Your task to perform on an android device: check battery use Image 0: 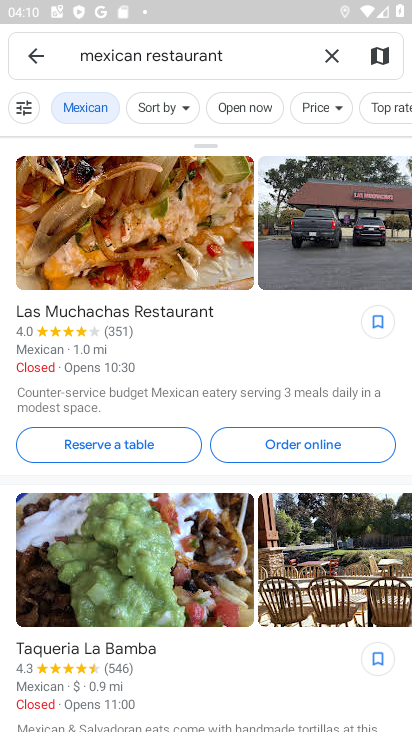
Step 0: click (139, 632)
Your task to perform on an android device: check battery use Image 1: 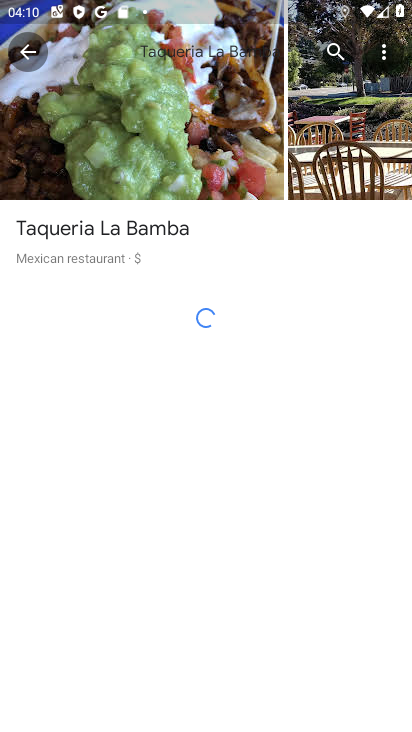
Step 1: press home button
Your task to perform on an android device: check battery use Image 2: 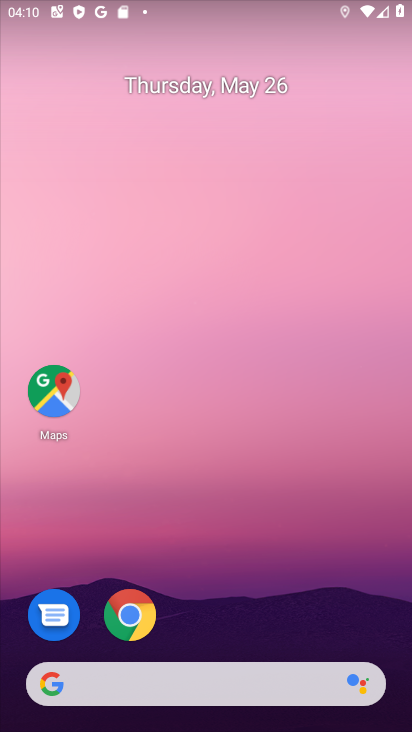
Step 2: drag from (207, 618) to (146, 155)
Your task to perform on an android device: check battery use Image 3: 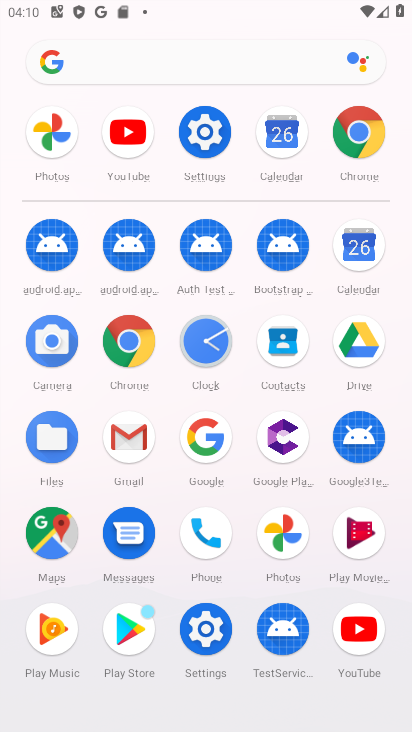
Step 3: click (200, 135)
Your task to perform on an android device: check battery use Image 4: 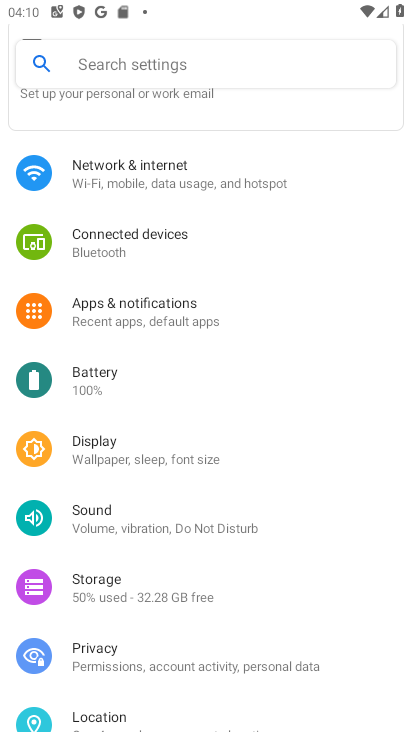
Step 4: click (131, 389)
Your task to perform on an android device: check battery use Image 5: 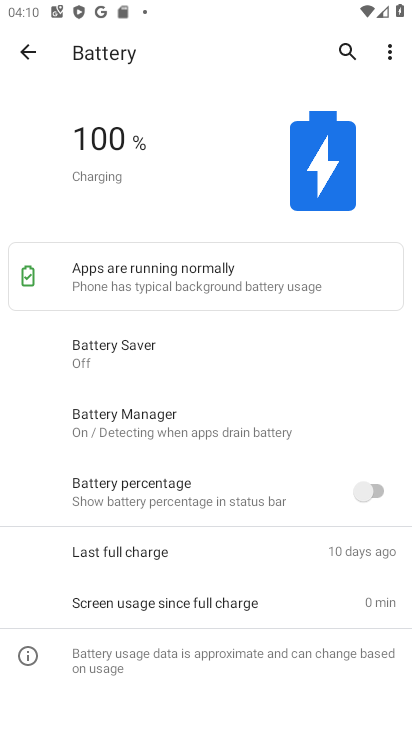
Step 5: task complete